Your task to perform on an android device: Open the Play Movies app and select the watchlist tab. Image 0: 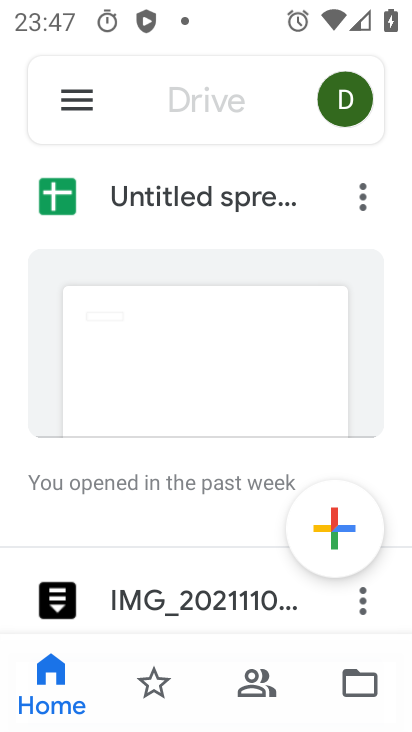
Step 0: press back button
Your task to perform on an android device: Open the Play Movies app and select the watchlist tab. Image 1: 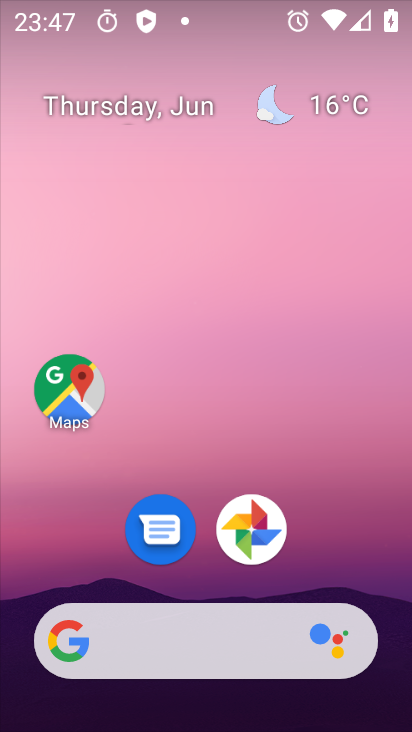
Step 1: click (78, 107)
Your task to perform on an android device: Open the Play Movies app and select the watchlist tab. Image 2: 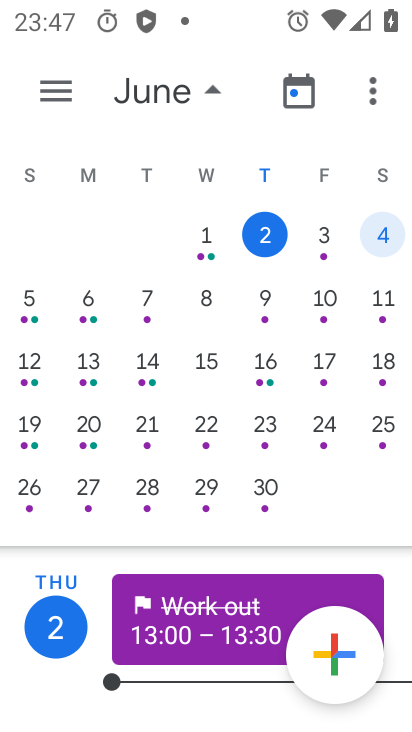
Step 2: press home button
Your task to perform on an android device: Open the Play Movies app and select the watchlist tab. Image 3: 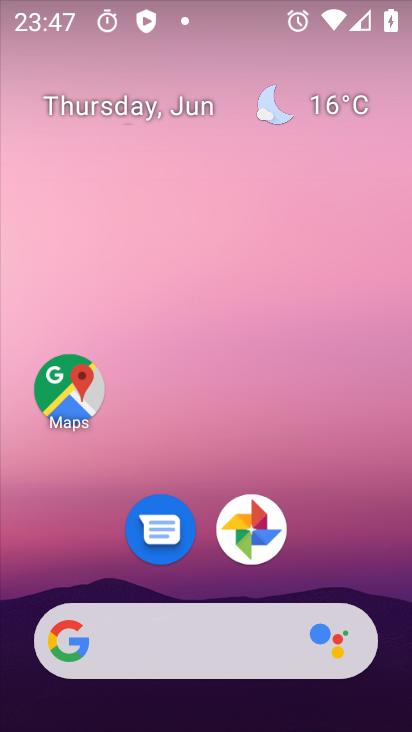
Step 3: drag from (258, 667) to (159, 141)
Your task to perform on an android device: Open the Play Movies app and select the watchlist tab. Image 4: 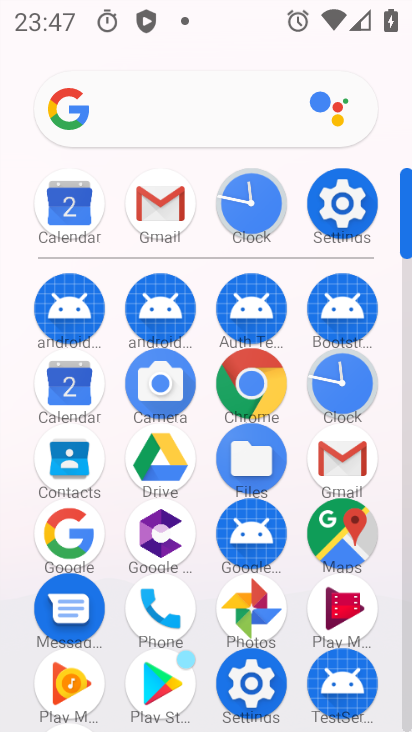
Step 4: click (351, 614)
Your task to perform on an android device: Open the Play Movies app and select the watchlist tab. Image 5: 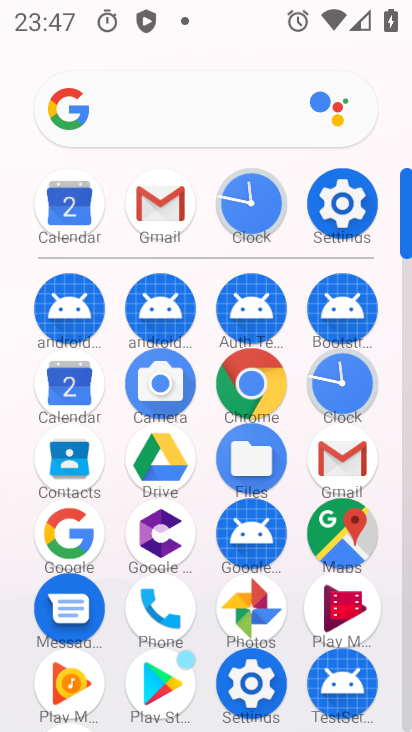
Step 5: click (351, 615)
Your task to perform on an android device: Open the Play Movies app and select the watchlist tab. Image 6: 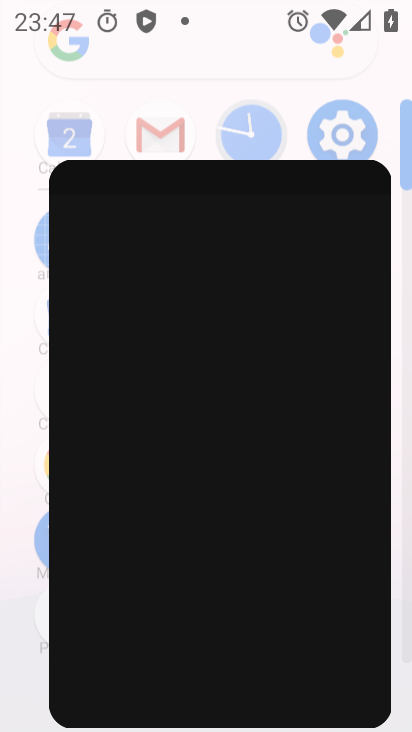
Step 6: click (351, 616)
Your task to perform on an android device: Open the Play Movies app and select the watchlist tab. Image 7: 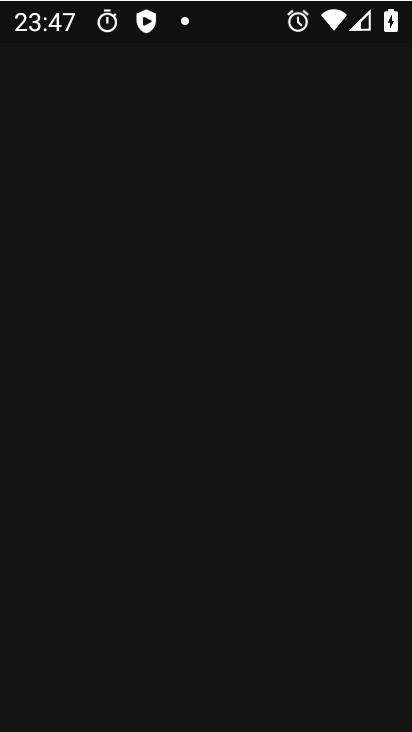
Step 7: click (351, 616)
Your task to perform on an android device: Open the Play Movies app and select the watchlist tab. Image 8: 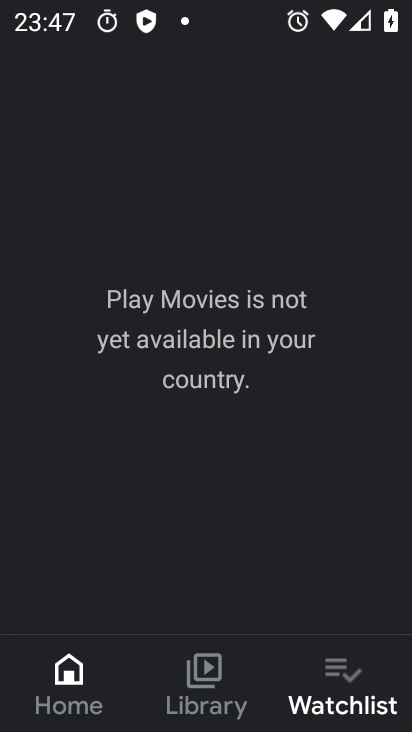
Step 8: click (319, 667)
Your task to perform on an android device: Open the Play Movies app and select the watchlist tab. Image 9: 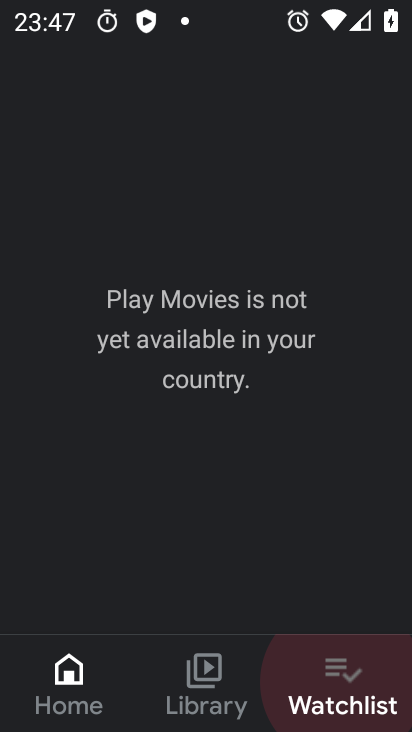
Step 9: click (336, 716)
Your task to perform on an android device: Open the Play Movies app and select the watchlist tab. Image 10: 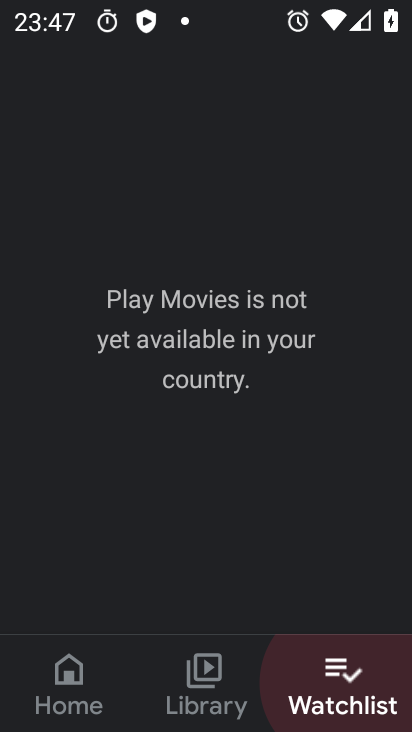
Step 10: click (336, 697)
Your task to perform on an android device: Open the Play Movies app and select the watchlist tab. Image 11: 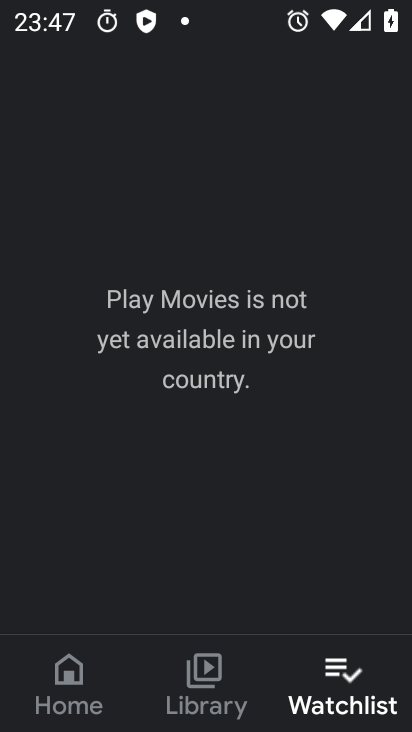
Step 11: task complete